Your task to perform on an android device: When is my next meeting? Image 0: 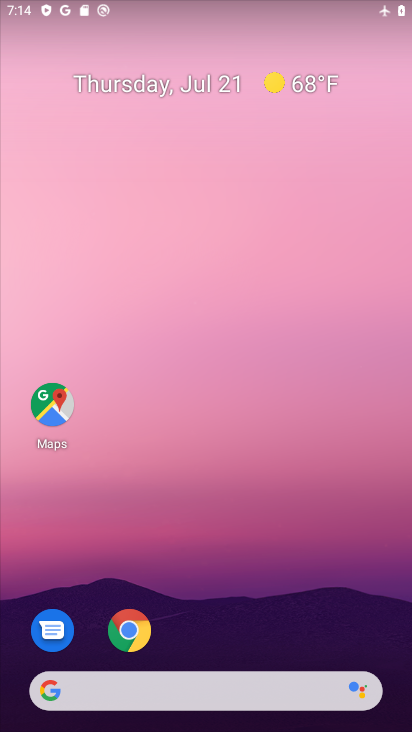
Step 0: drag from (318, 642) to (326, 17)
Your task to perform on an android device: When is my next meeting? Image 1: 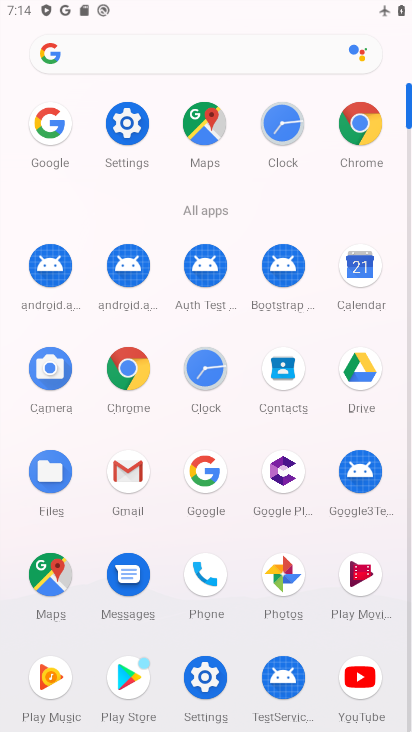
Step 1: click (375, 271)
Your task to perform on an android device: When is my next meeting? Image 2: 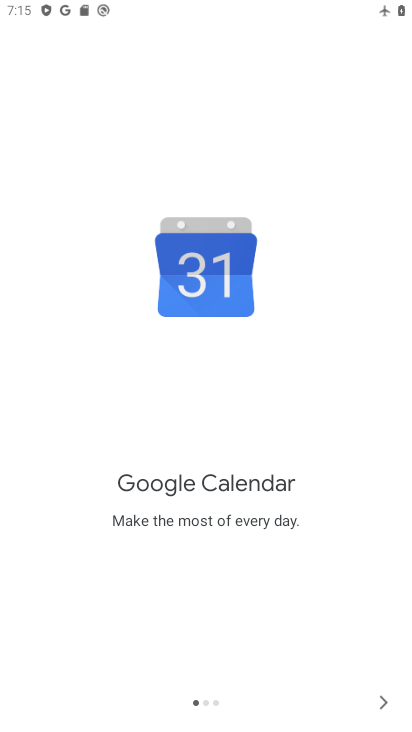
Step 2: click (392, 714)
Your task to perform on an android device: When is my next meeting? Image 3: 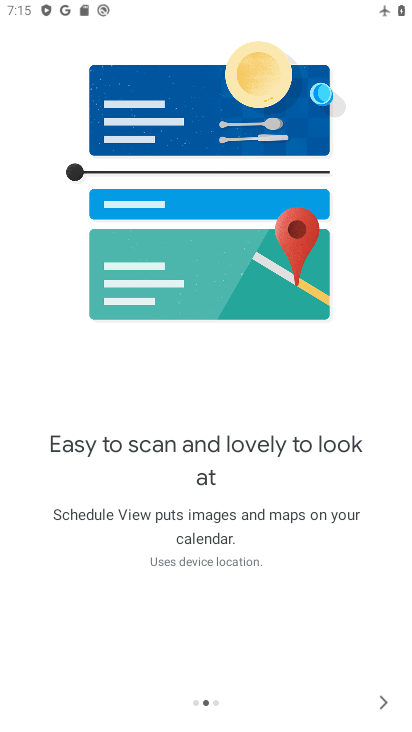
Step 3: click (388, 704)
Your task to perform on an android device: When is my next meeting? Image 4: 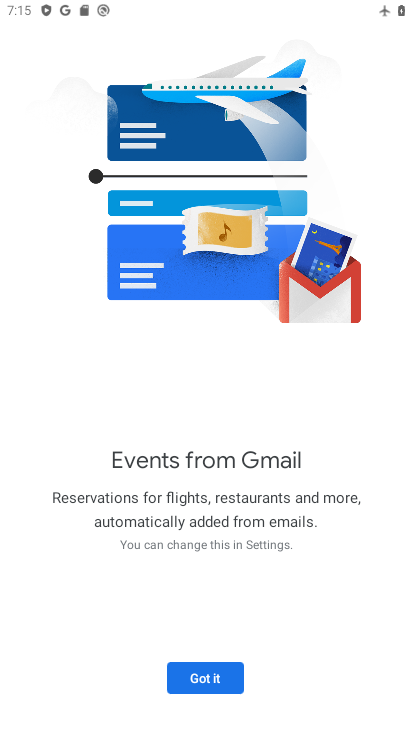
Step 4: click (214, 681)
Your task to perform on an android device: When is my next meeting? Image 5: 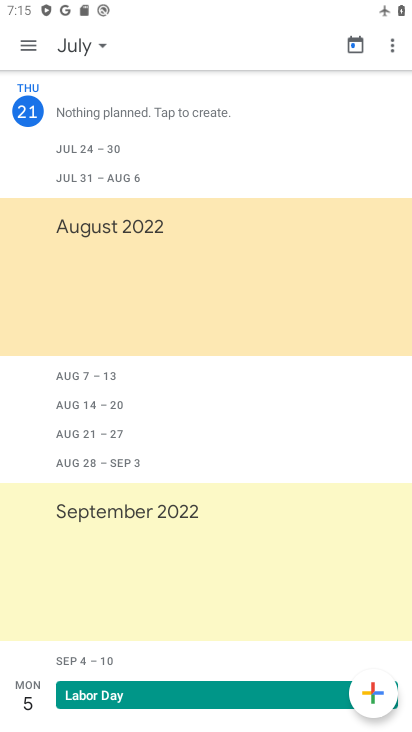
Step 5: click (74, 38)
Your task to perform on an android device: When is my next meeting? Image 6: 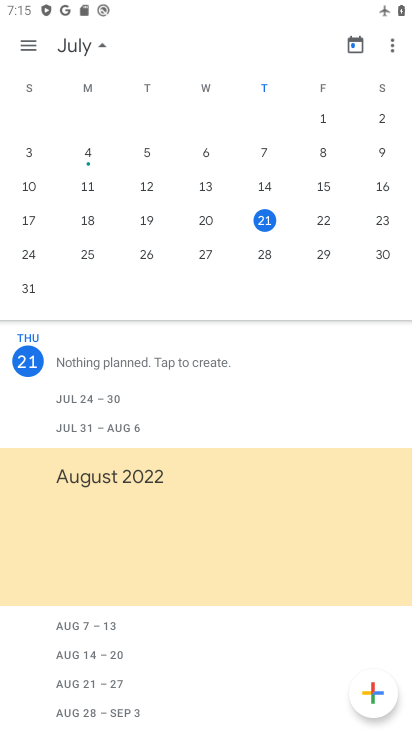
Step 6: task complete